Your task to perform on an android device: Set the phone to "Do not disturb". Image 0: 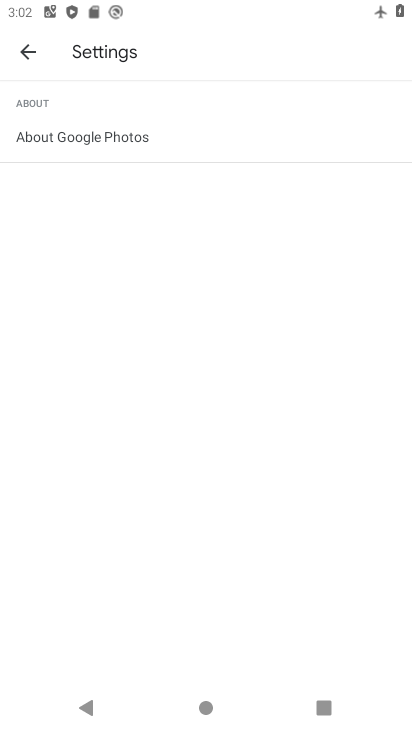
Step 0: drag from (240, 5) to (246, 374)
Your task to perform on an android device: Set the phone to "Do not disturb". Image 1: 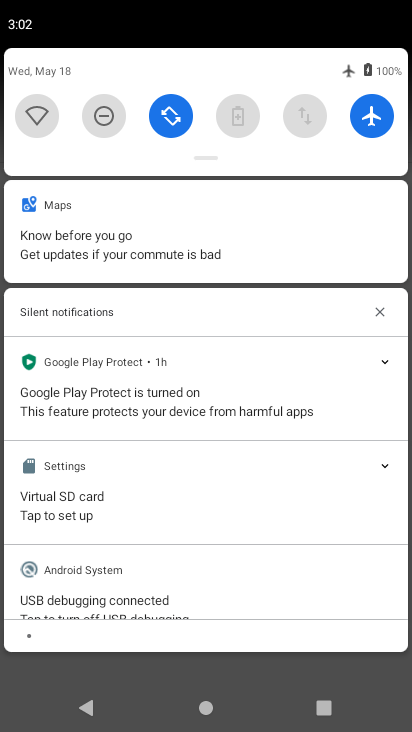
Step 1: click (110, 119)
Your task to perform on an android device: Set the phone to "Do not disturb". Image 2: 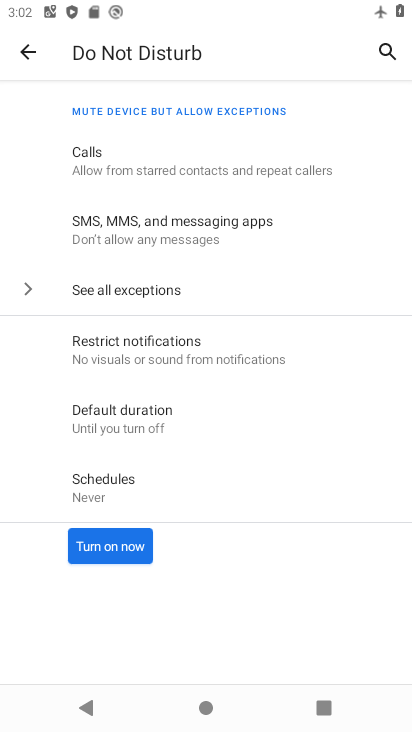
Step 2: click (111, 531)
Your task to perform on an android device: Set the phone to "Do not disturb". Image 3: 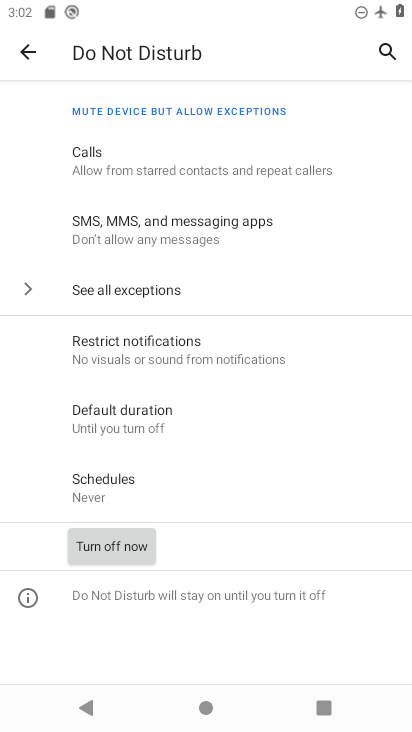
Step 3: task complete